Your task to perform on an android device: Open the stopwatch Image 0: 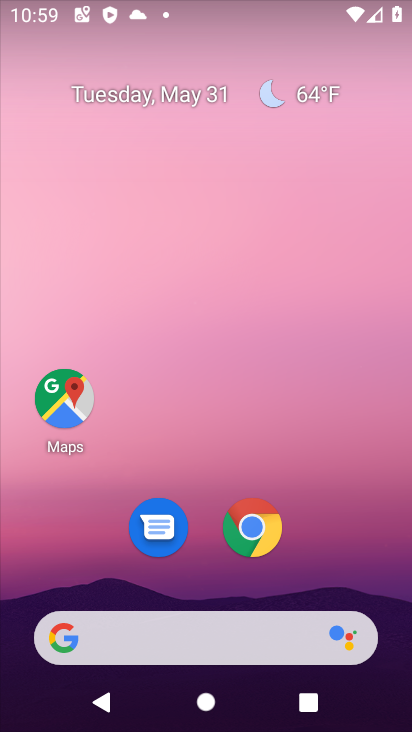
Step 0: drag from (260, 315) to (259, 7)
Your task to perform on an android device: Open the stopwatch Image 1: 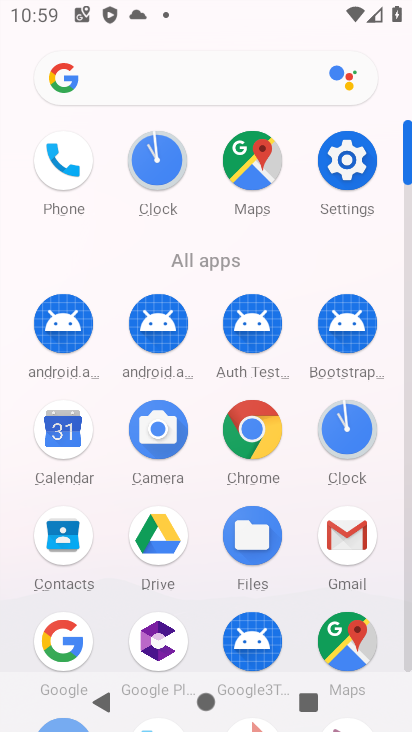
Step 1: drag from (233, 360) to (351, 31)
Your task to perform on an android device: Open the stopwatch Image 2: 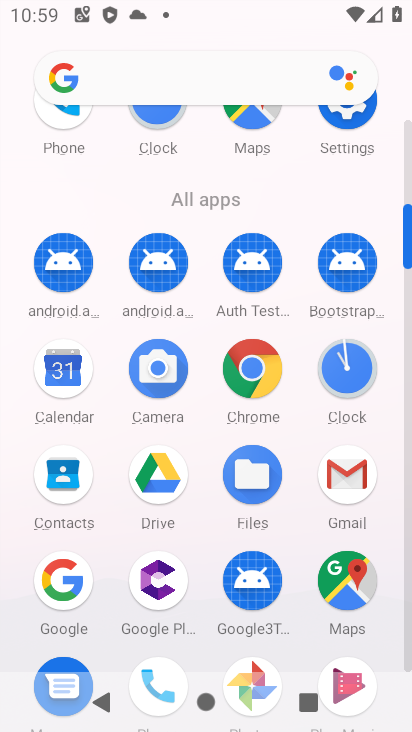
Step 2: click (357, 360)
Your task to perform on an android device: Open the stopwatch Image 3: 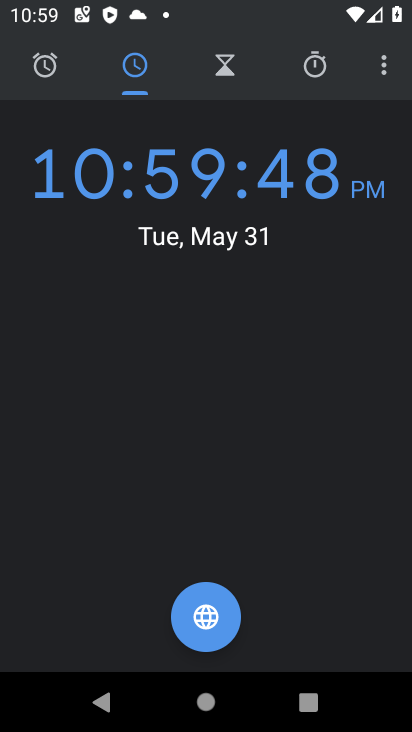
Step 3: click (328, 57)
Your task to perform on an android device: Open the stopwatch Image 4: 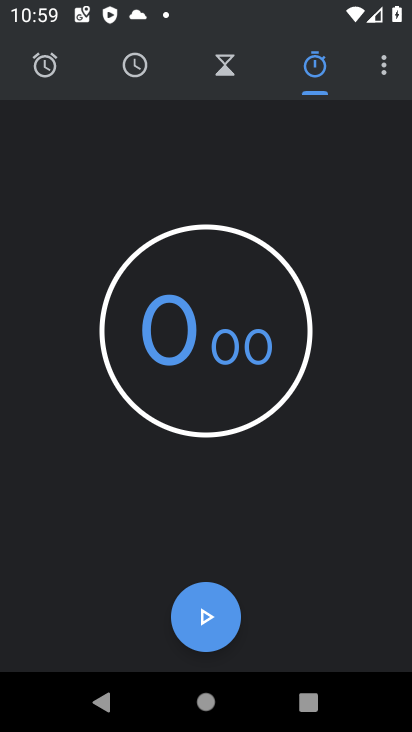
Step 4: task complete